Your task to perform on an android device: turn pop-ups on in chrome Image 0: 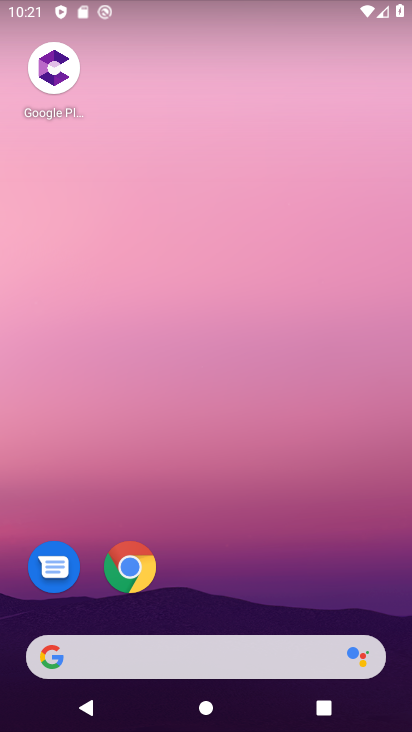
Step 0: click (127, 564)
Your task to perform on an android device: turn pop-ups on in chrome Image 1: 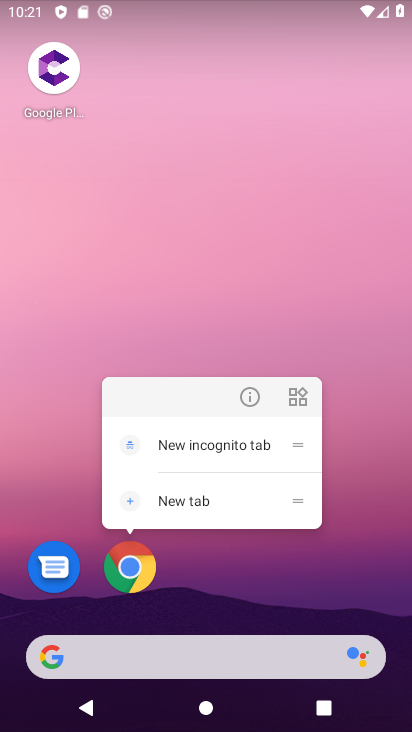
Step 1: click (254, 394)
Your task to perform on an android device: turn pop-ups on in chrome Image 2: 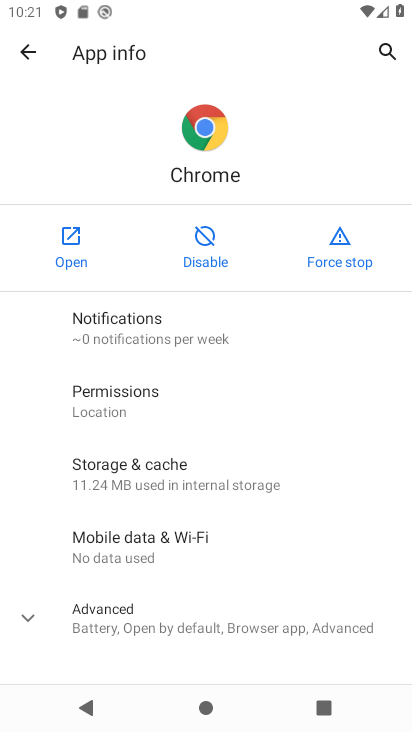
Step 2: click (72, 249)
Your task to perform on an android device: turn pop-ups on in chrome Image 3: 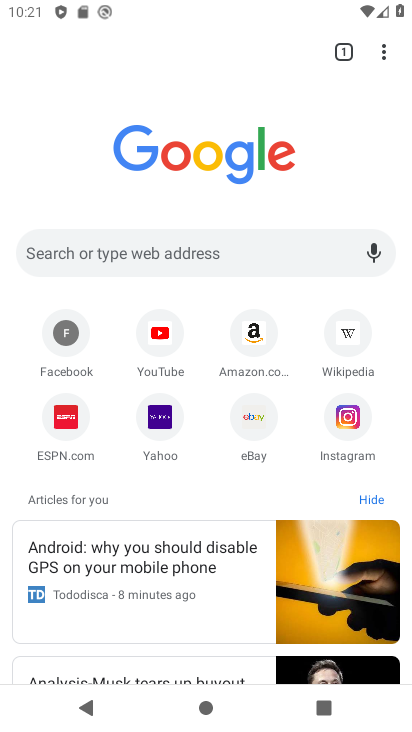
Step 3: click (384, 47)
Your task to perform on an android device: turn pop-ups on in chrome Image 4: 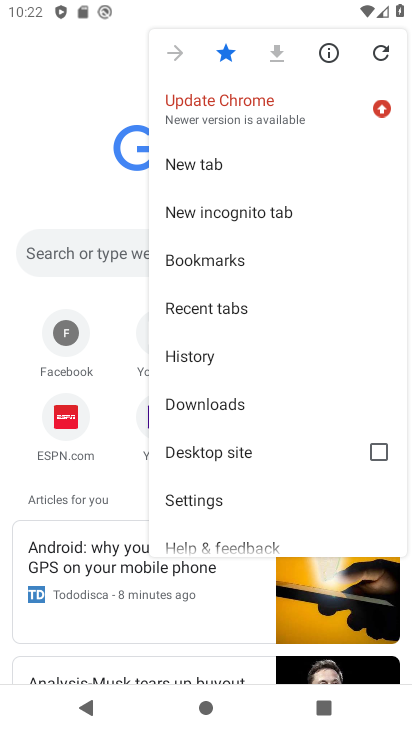
Step 4: click (207, 504)
Your task to perform on an android device: turn pop-ups on in chrome Image 5: 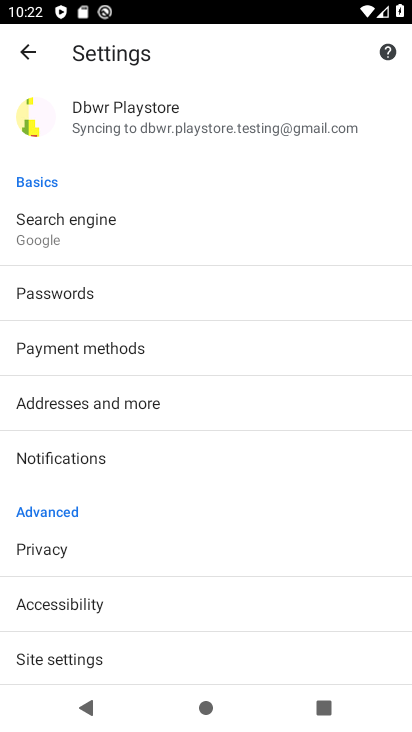
Step 5: drag from (169, 525) to (217, 286)
Your task to perform on an android device: turn pop-ups on in chrome Image 6: 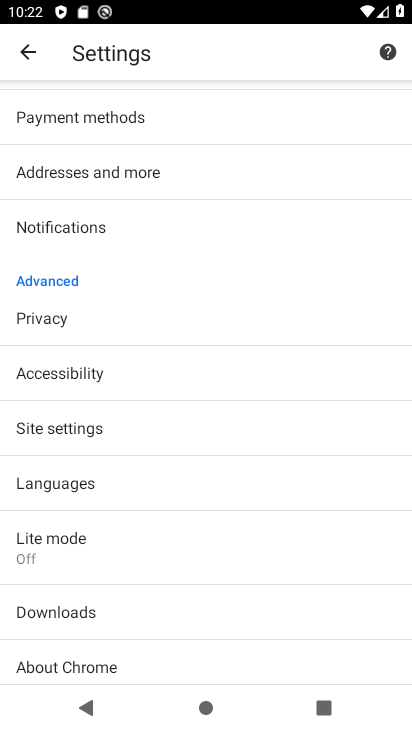
Step 6: click (77, 421)
Your task to perform on an android device: turn pop-ups on in chrome Image 7: 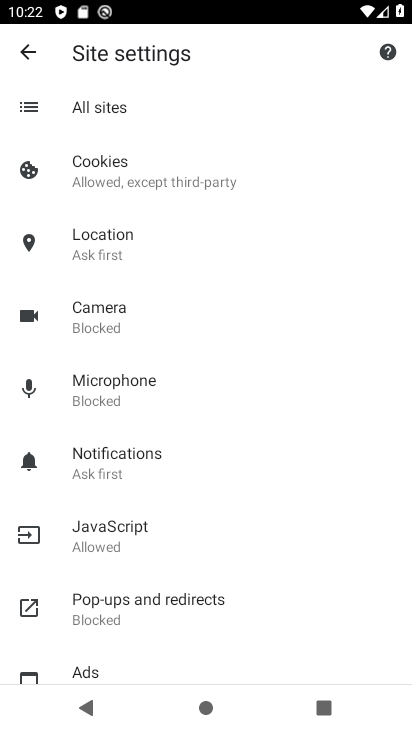
Step 7: click (150, 603)
Your task to perform on an android device: turn pop-ups on in chrome Image 8: 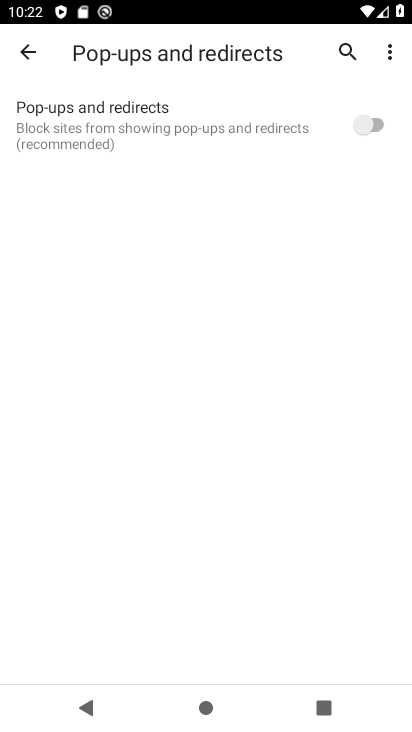
Step 8: click (364, 118)
Your task to perform on an android device: turn pop-ups on in chrome Image 9: 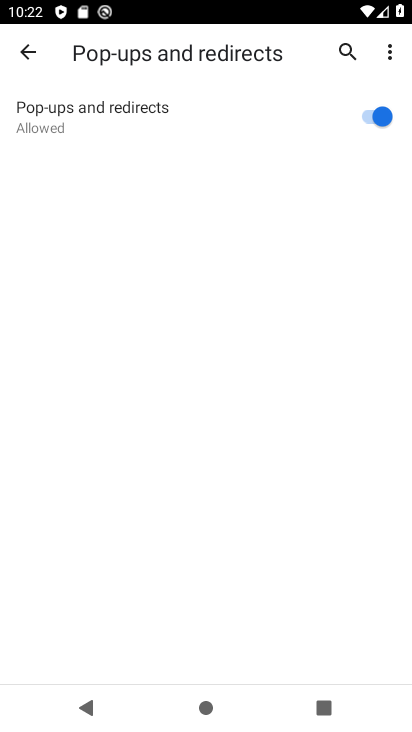
Step 9: task complete